Your task to perform on an android device: Search for the best selling book on Amazon. Image 0: 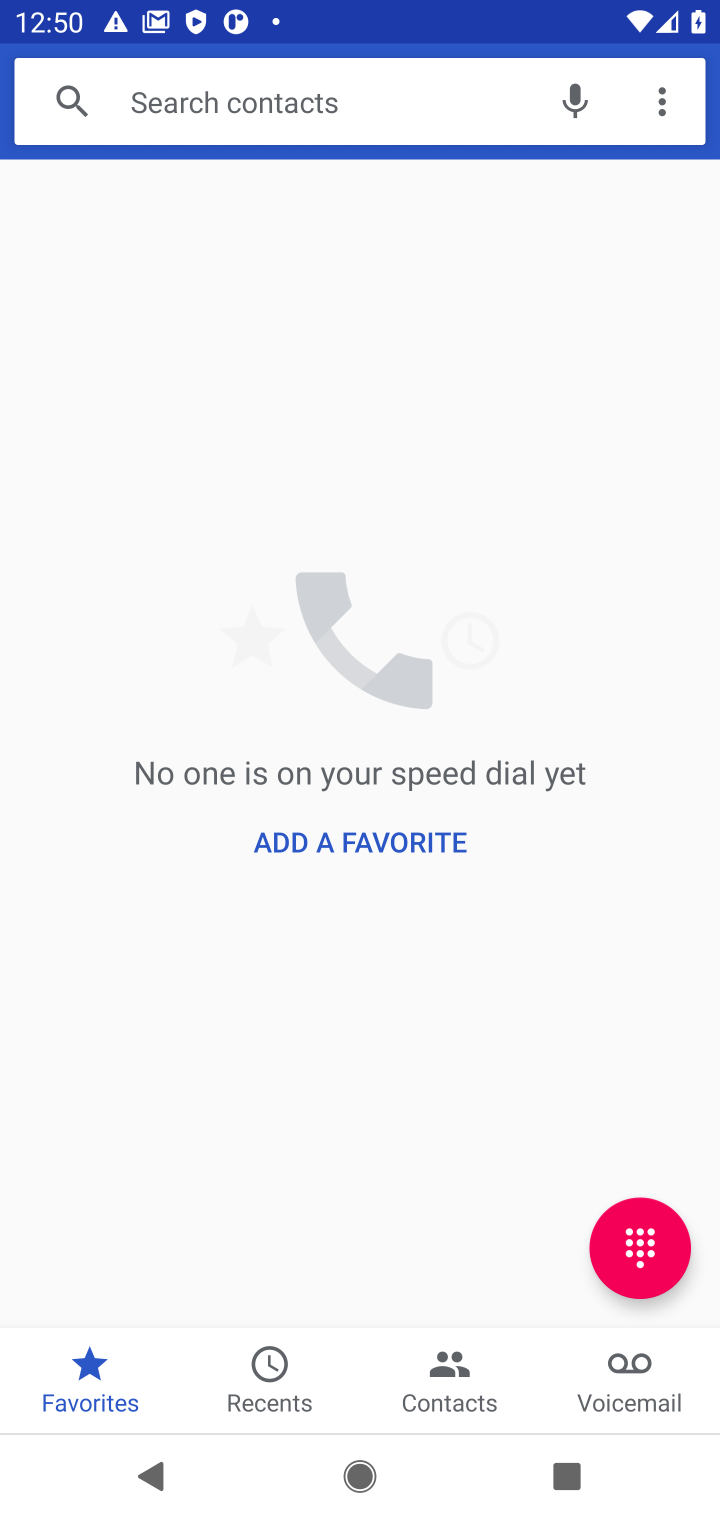
Step 0: press home button
Your task to perform on an android device: Search for the best selling book on Amazon. Image 1: 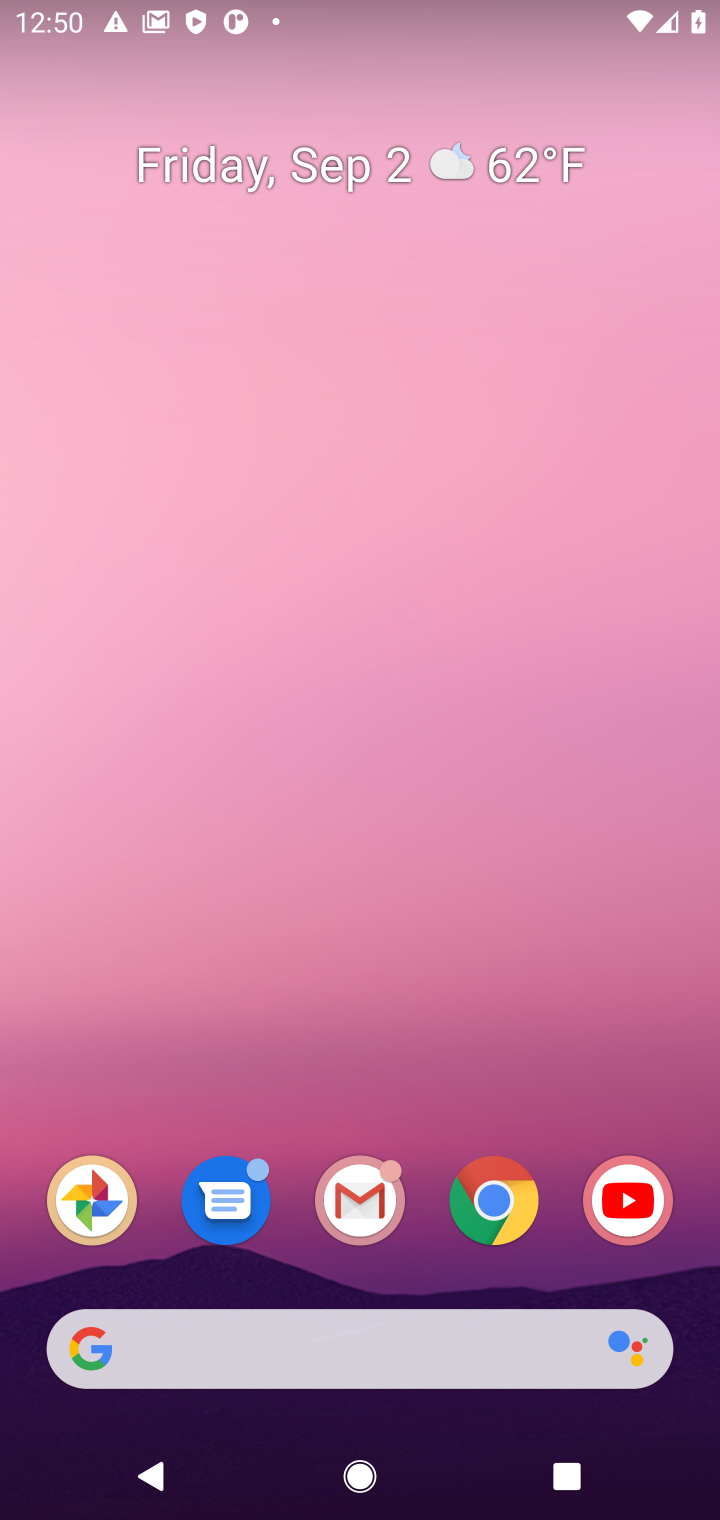
Step 1: click (506, 1198)
Your task to perform on an android device: Search for the best selling book on Amazon. Image 2: 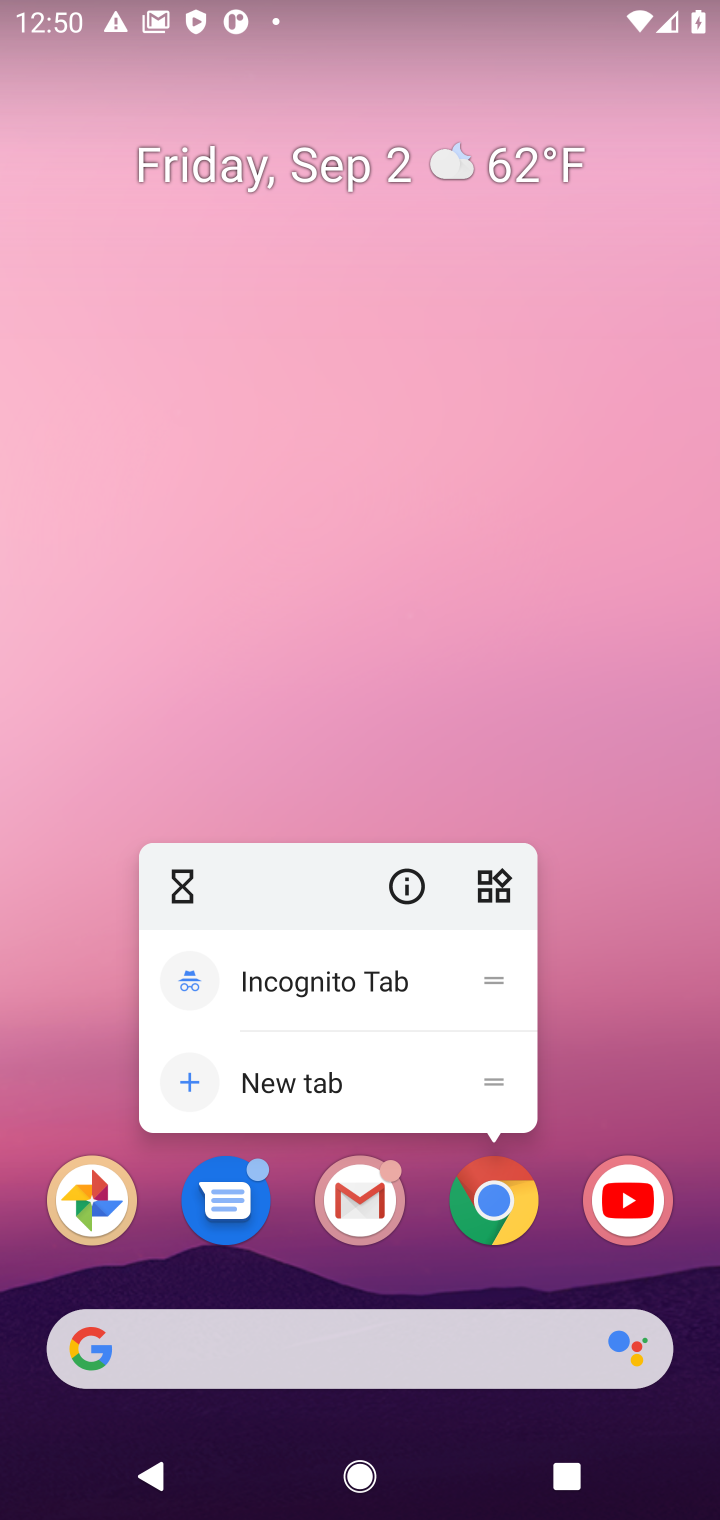
Step 2: click (506, 1200)
Your task to perform on an android device: Search for the best selling book on Amazon. Image 3: 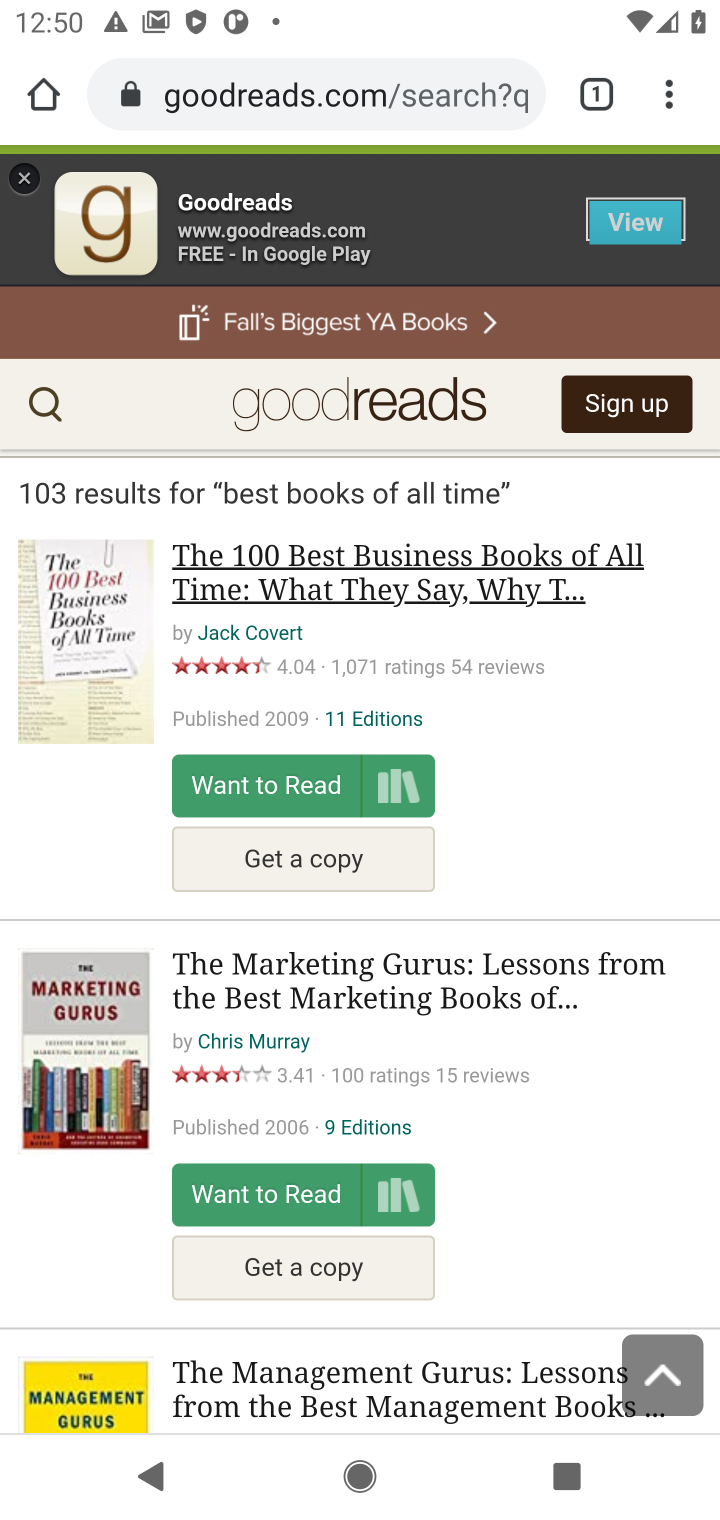
Step 3: click (460, 96)
Your task to perform on an android device: Search for the best selling book on Amazon. Image 4: 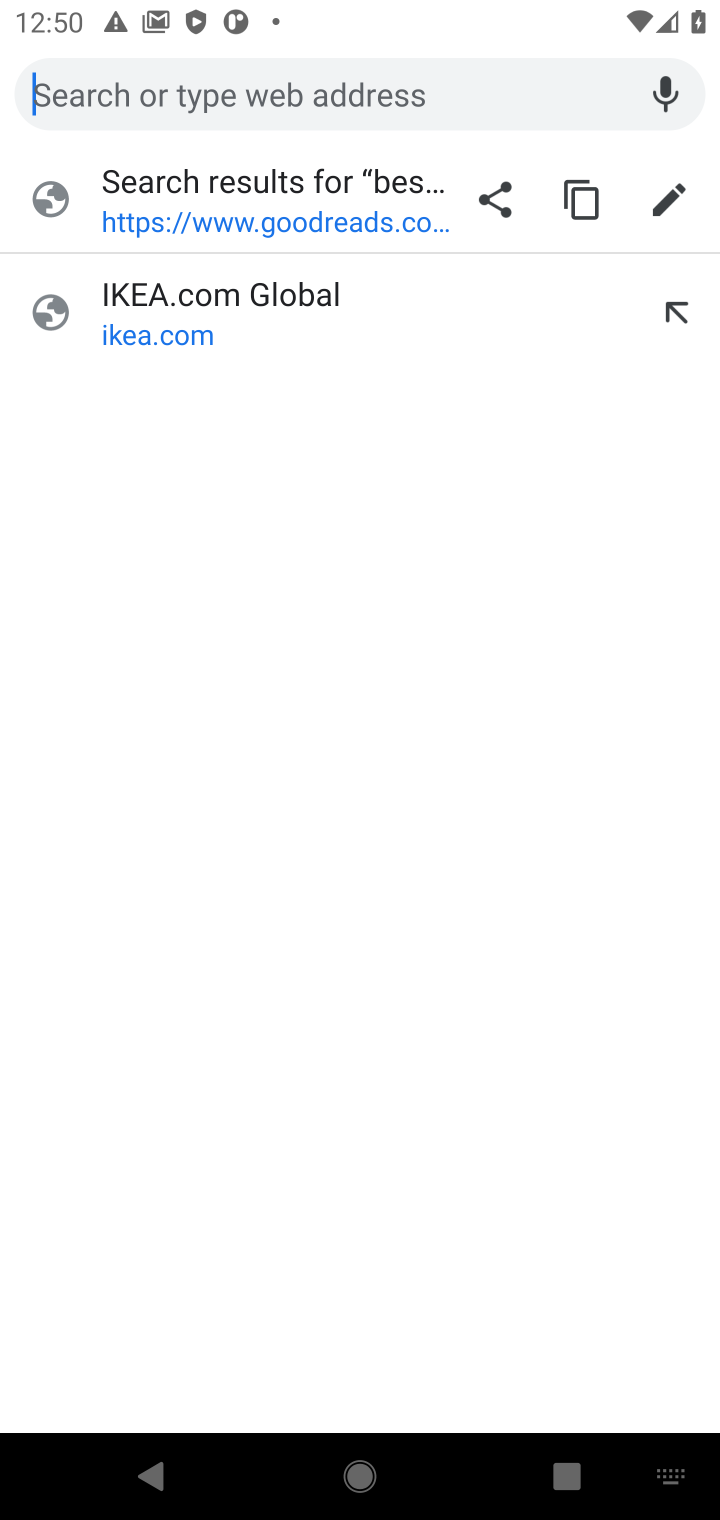
Step 4: type "Amazon"
Your task to perform on an android device: Search for the best selling book on Amazon. Image 5: 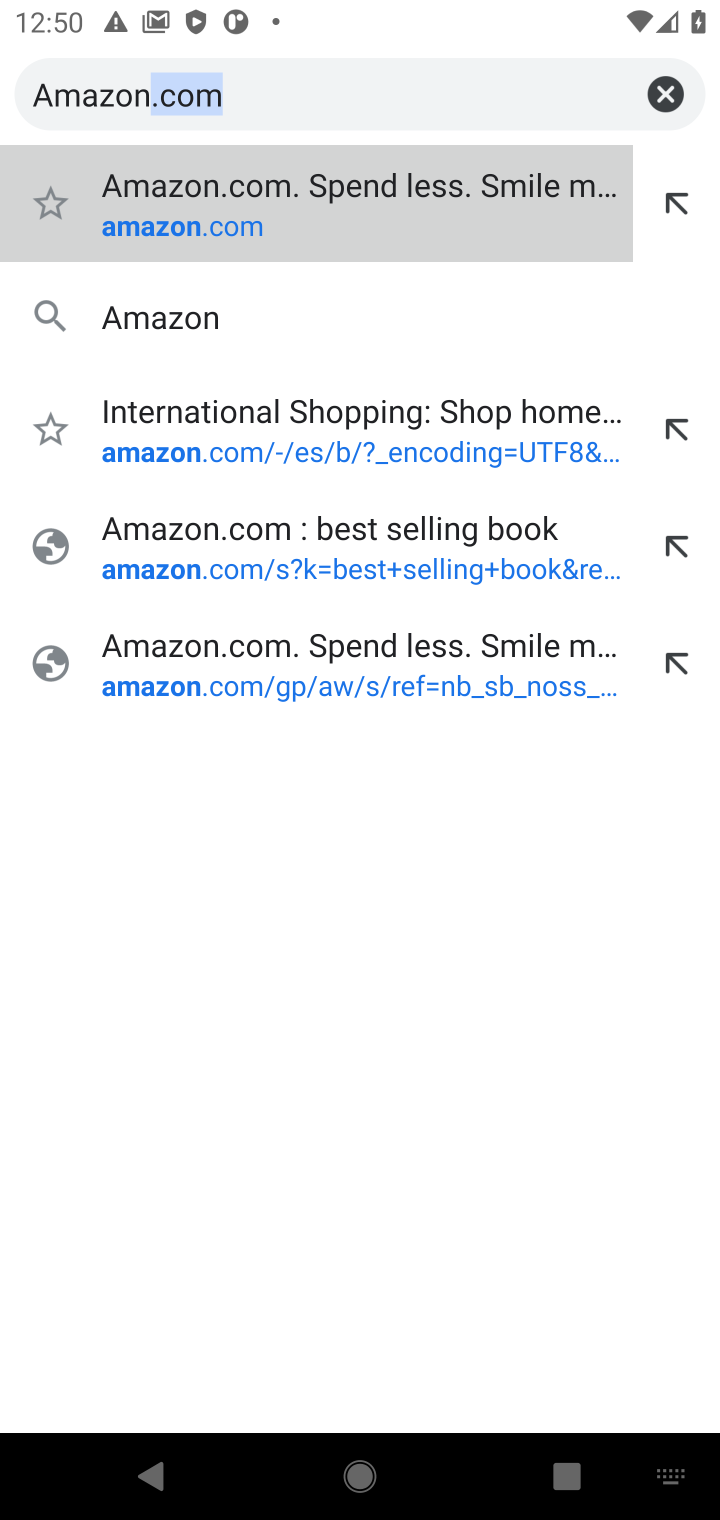
Step 5: press enter
Your task to perform on an android device: Search for the best selling book on Amazon. Image 6: 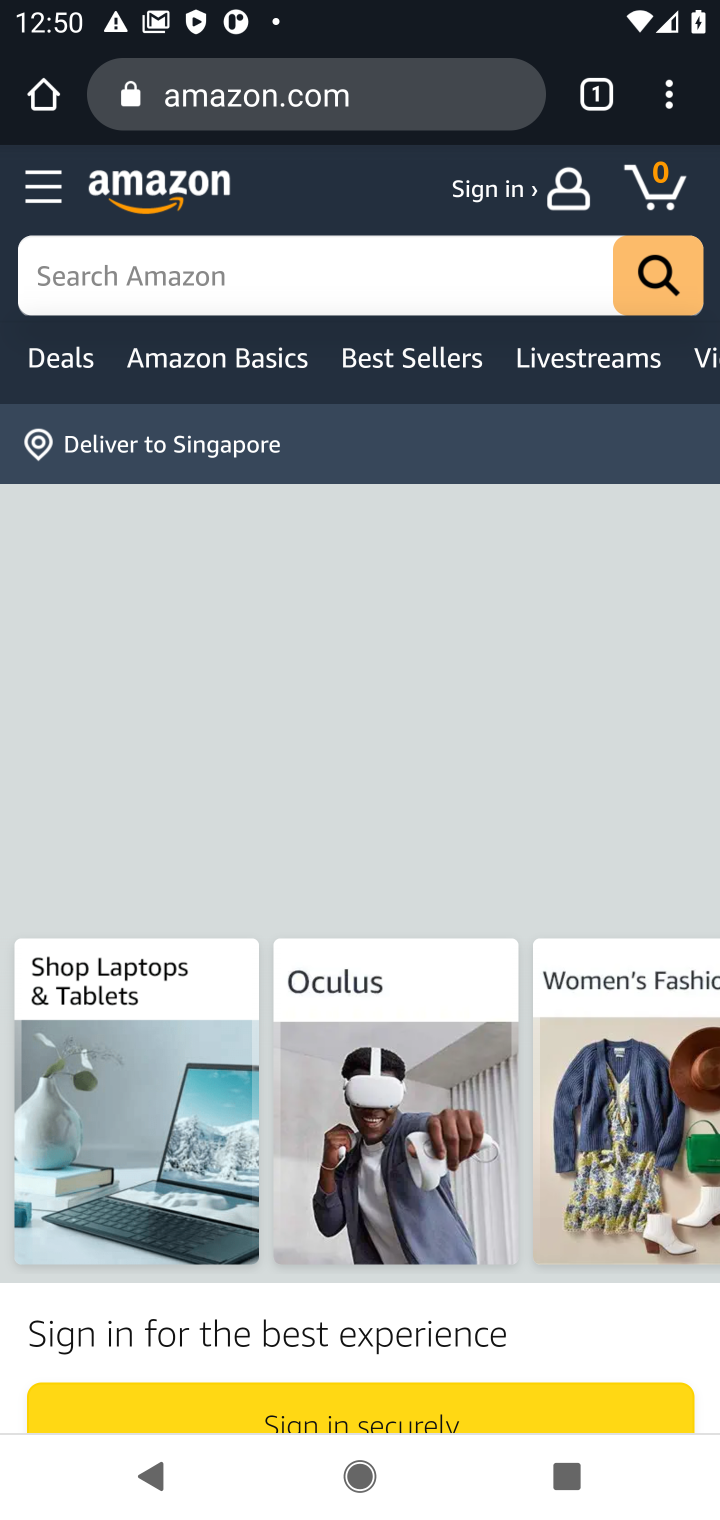
Step 6: click (350, 274)
Your task to perform on an android device: Search for the best selling book on Amazon. Image 7: 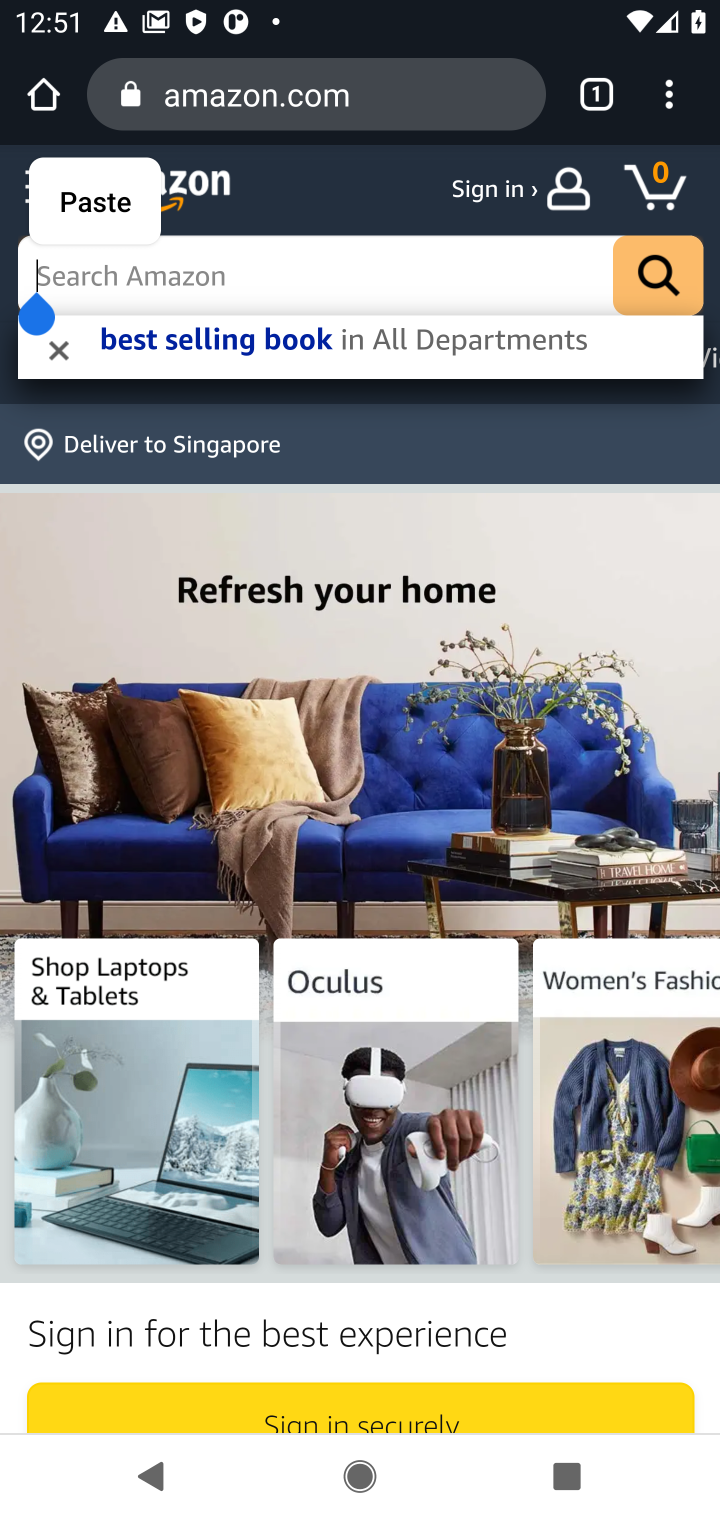
Step 7: type "best selling book"
Your task to perform on an android device: Search for the best selling book on Amazon. Image 8: 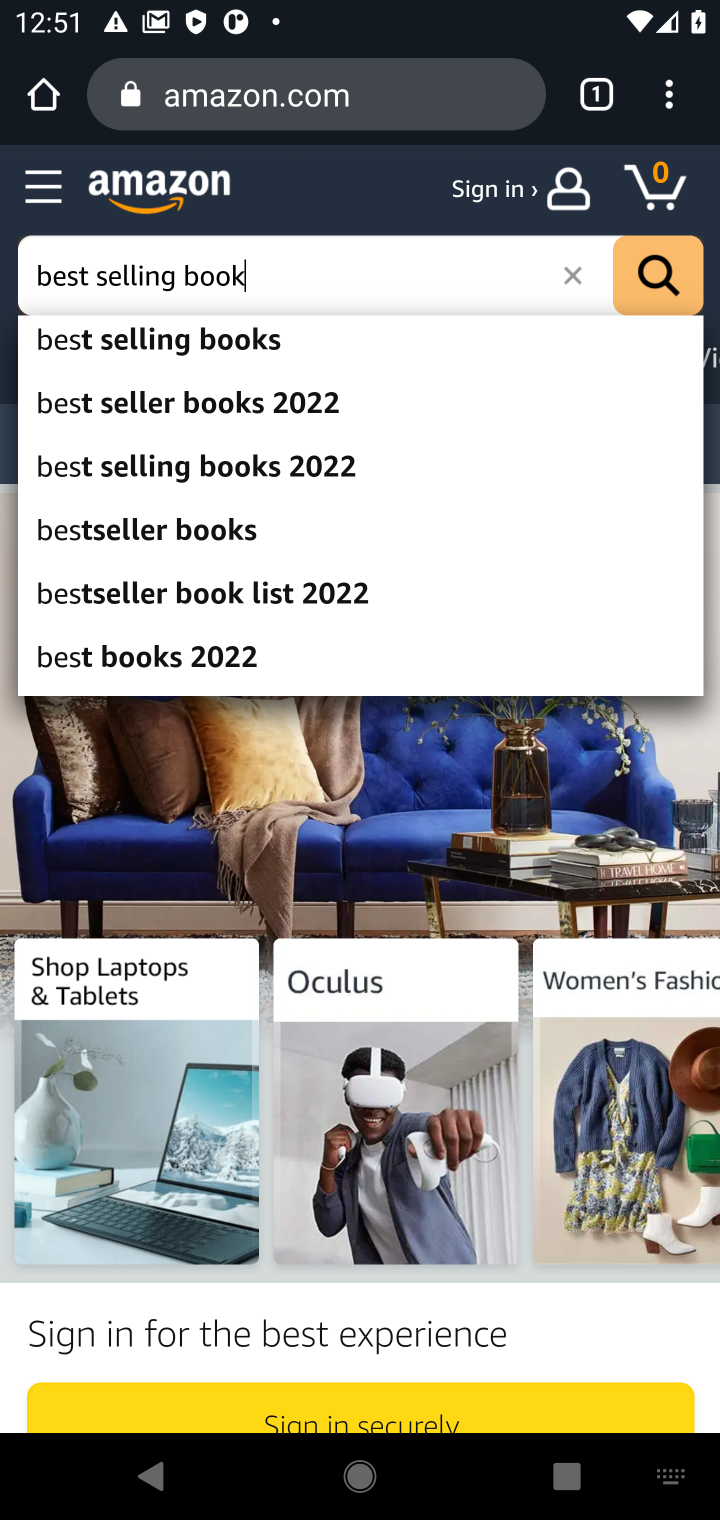
Step 8: press enter
Your task to perform on an android device: Search for the best selling book on Amazon. Image 9: 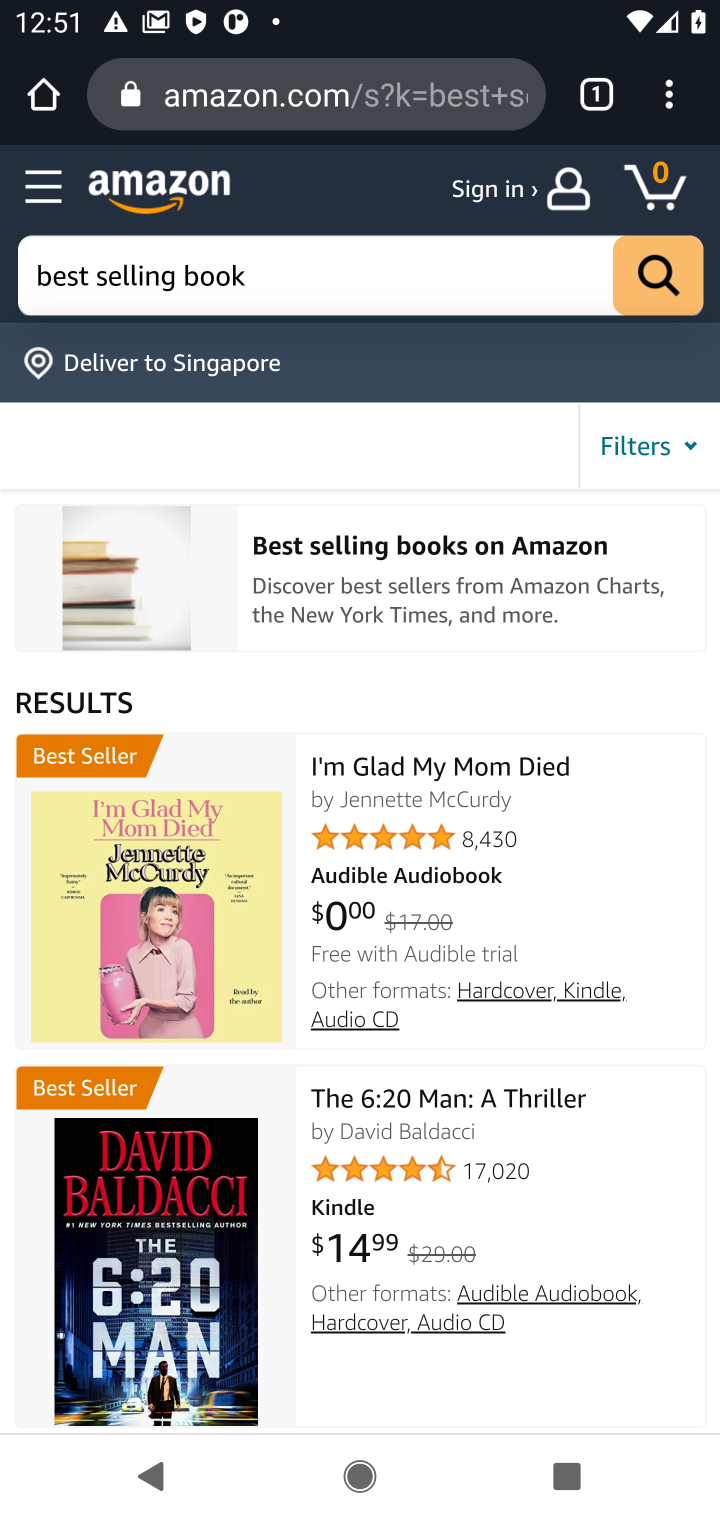
Step 9: task complete